Your task to perform on an android device: find which apps use the phone's location Image 0: 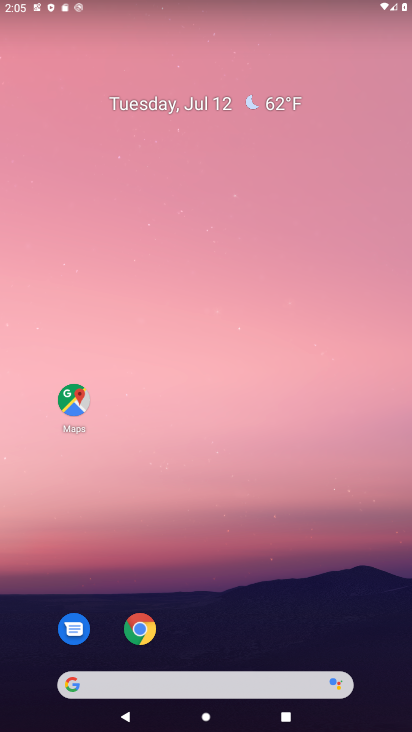
Step 0: press home button
Your task to perform on an android device: find which apps use the phone's location Image 1: 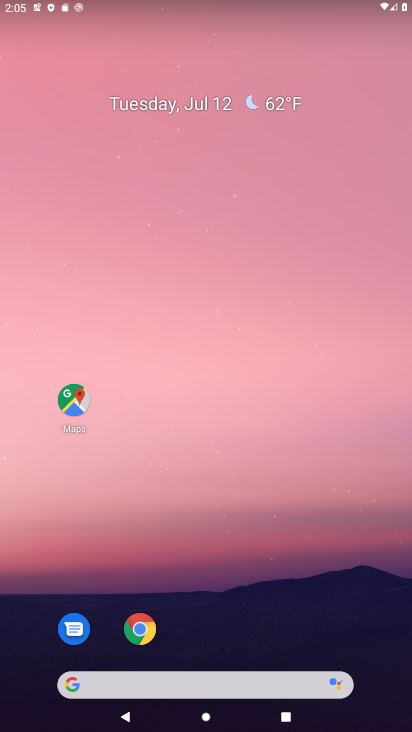
Step 1: drag from (214, 651) to (235, 7)
Your task to perform on an android device: find which apps use the phone's location Image 2: 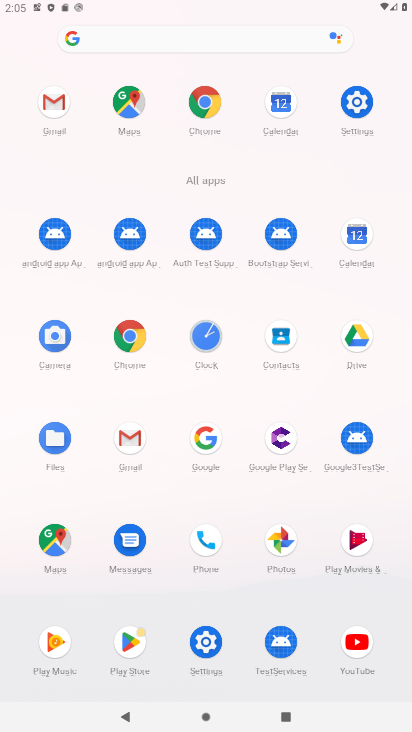
Step 2: click (357, 99)
Your task to perform on an android device: find which apps use the phone's location Image 3: 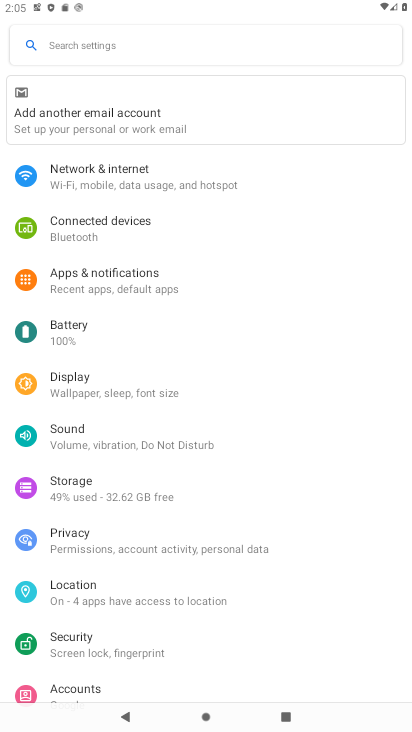
Step 3: click (117, 589)
Your task to perform on an android device: find which apps use the phone's location Image 4: 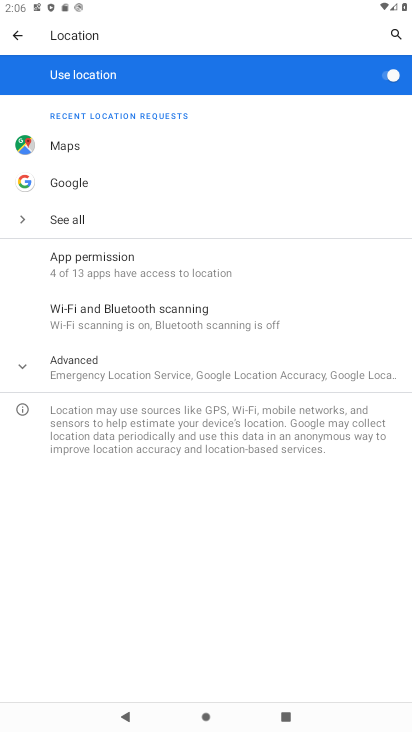
Step 4: click (22, 365)
Your task to perform on an android device: find which apps use the phone's location Image 5: 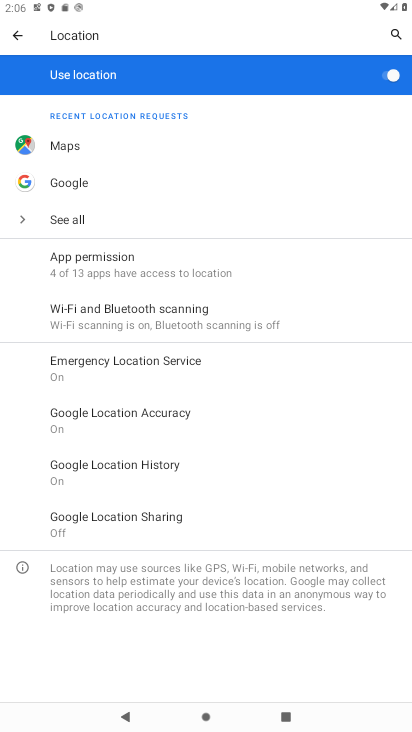
Step 5: click (96, 262)
Your task to perform on an android device: find which apps use the phone's location Image 6: 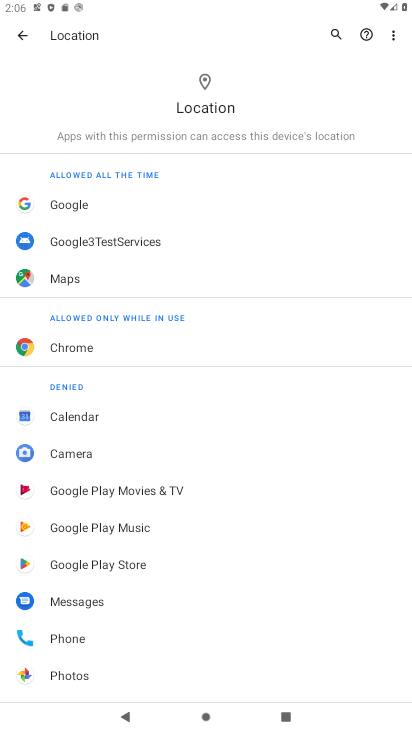
Step 6: task complete